Your task to perform on an android device: Open the calendar app, open the side menu, and click the "Day" option Image 0: 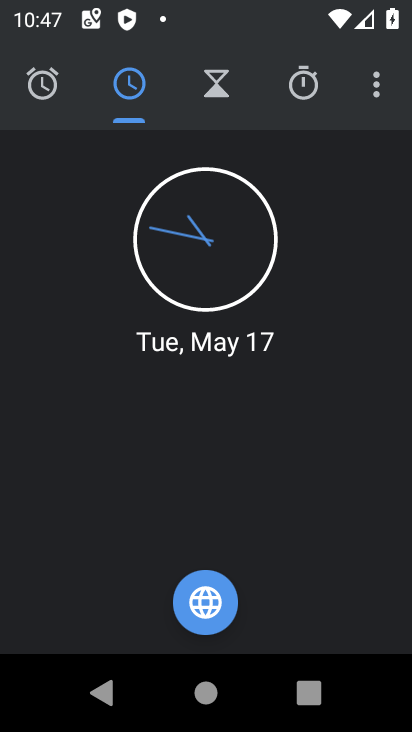
Step 0: press home button
Your task to perform on an android device: Open the calendar app, open the side menu, and click the "Day" option Image 1: 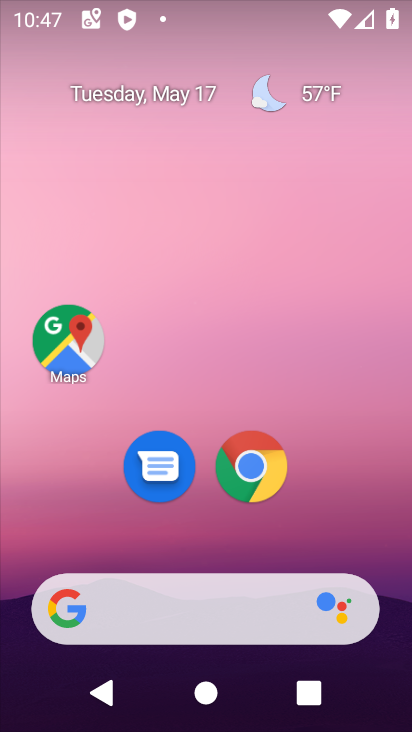
Step 1: drag from (234, 553) to (227, 38)
Your task to perform on an android device: Open the calendar app, open the side menu, and click the "Day" option Image 2: 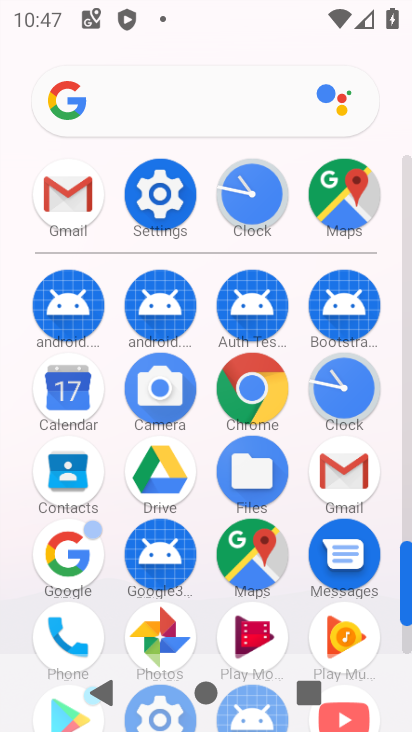
Step 2: click (80, 396)
Your task to perform on an android device: Open the calendar app, open the side menu, and click the "Day" option Image 3: 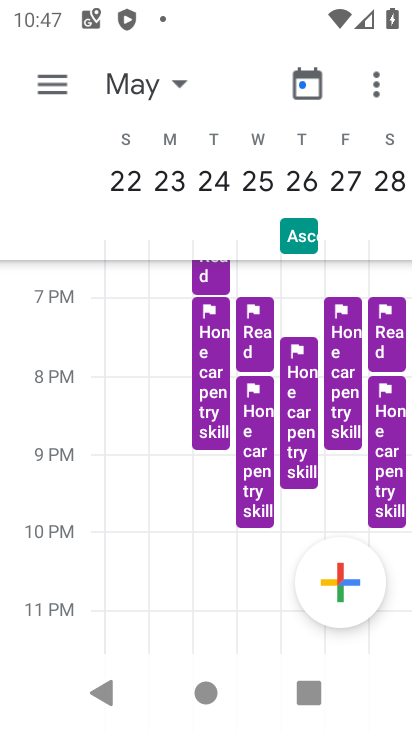
Step 3: click (37, 79)
Your task to perform on an android device: Open the calendar app, open the side menu, and click the "Day" option Image 4: 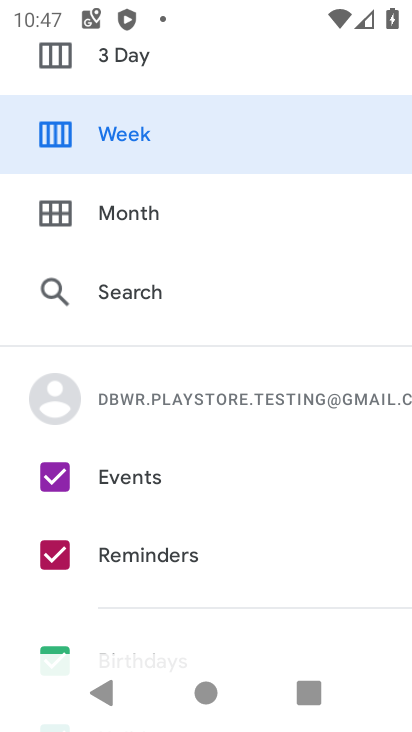
Step 4: drag from (178, 248) to (164, 655)
Your task to perform on an android device: Open the calendar app, open the side menu, and click the "Day" option Image 5: 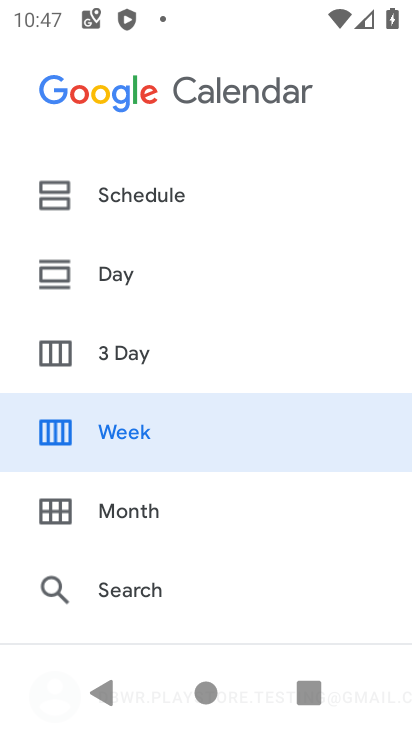
Step 5: click (121, 272)
Your task to perform on an android device: Open the calendar app, open the side menu, and click the "Day" option Image 6: 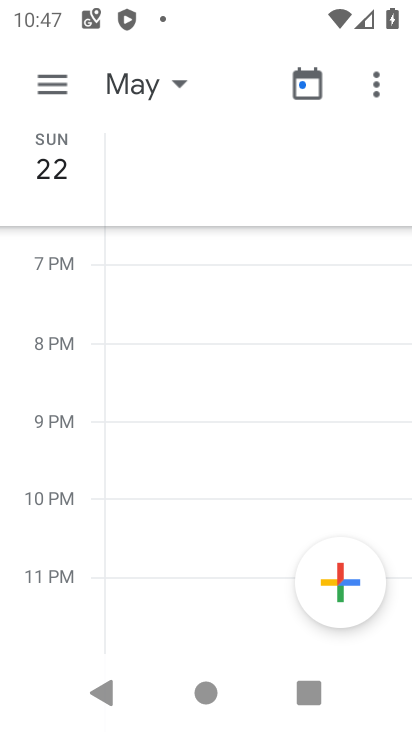
Step 6: task complete